Your task to perform on an android device: Search for vegetarian restaurants on Maps Image 0: 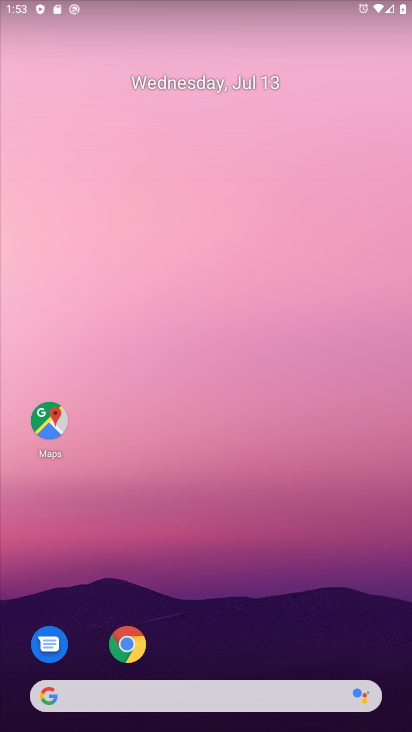
Step 0: drag from (215, 670) to (188, 104)
Your task to perform on an android device: Search for vegetarian restaurants on Maps Image 1: 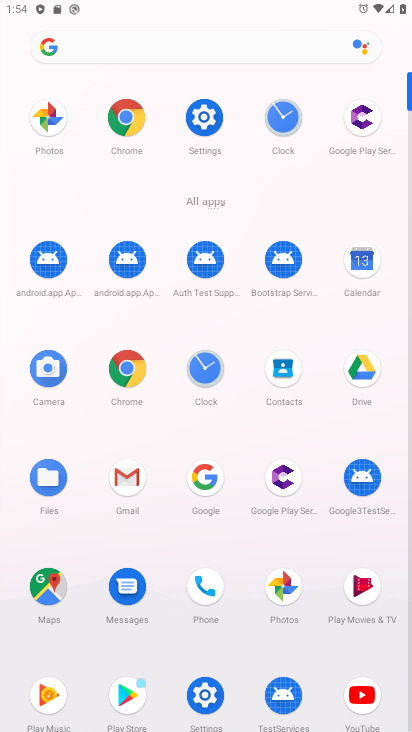
Step 1: click (54, 571)
Your task to perform on an android device: Search for vegetarian restaurants on Maps Image 2: 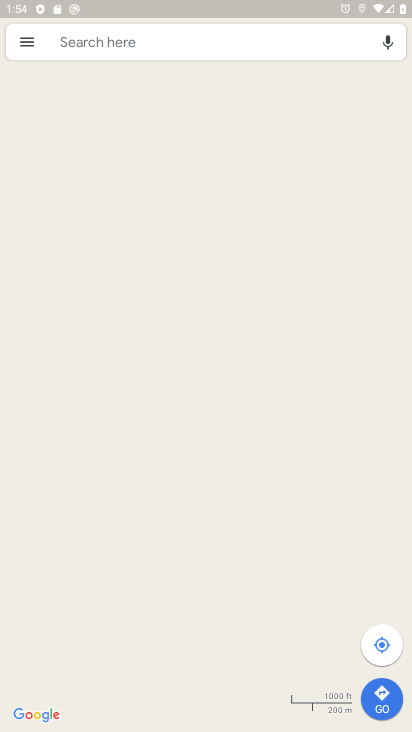
Step 2: click (107, 50)
Your task to perform on an android device: Search for vegetarian restaurants on Maps Image 3: 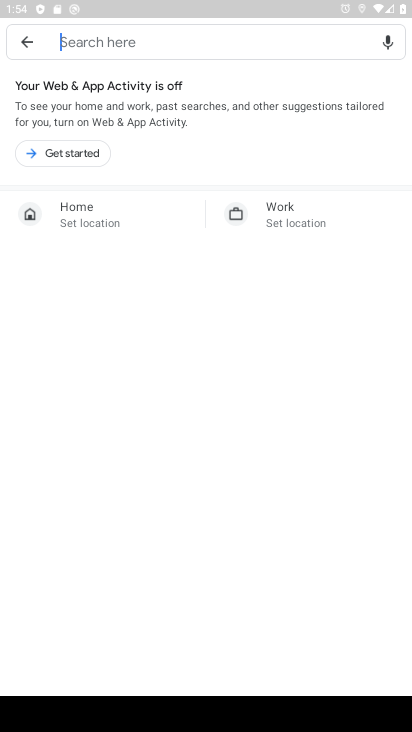
Step 3: click (83, 152)
Your task to perform on an android device: Search for vegetarian restaurants on Maps Image 4: 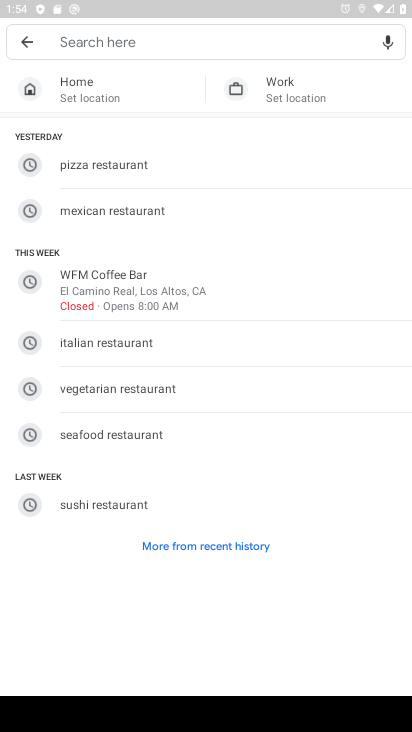
Step 4: click (94, 373)
Your task to perform on an android device: Search for vegetarian restaurants on Maps Image 5: 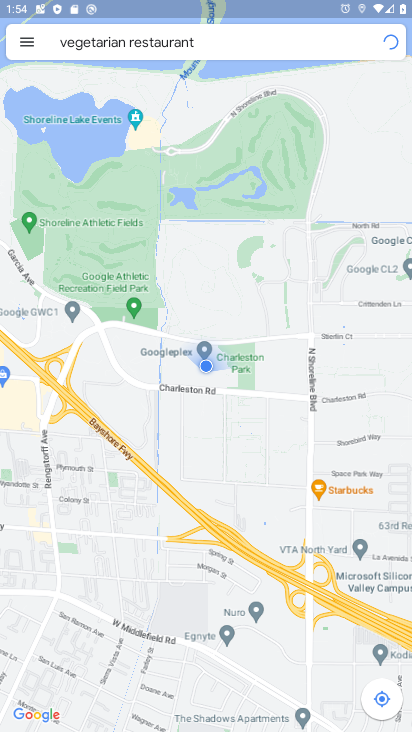
Step 5: task complete